Your task to perform on an android device: install app "Pandora - Music & Podcasts" Image 0: 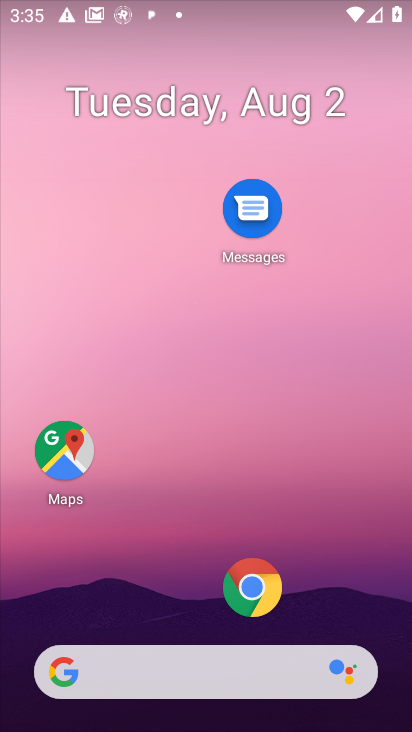
Step 0: drag from (145, 603) to (154, 356)
Your task to perform on an android device: install app "Pandora - Music & Podcasts" Image 1: 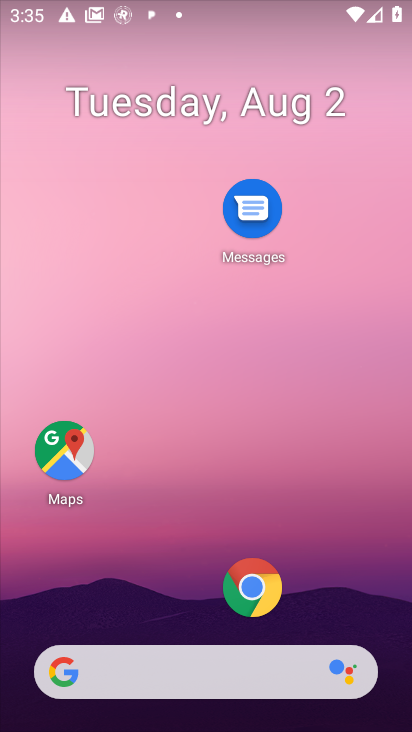
Step 1: drag from (147, 574) to (152, 238)
Your task to perform on an android device: install app "Pandora - Music & Podcasts" Image 2: 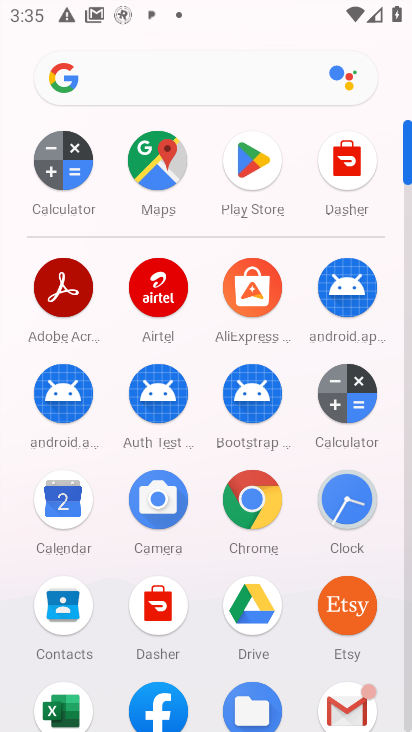
Step 2: click (240, 160)
Your task to perform on an android device: install app "Pandora - Music & Podcasts" Image 3: 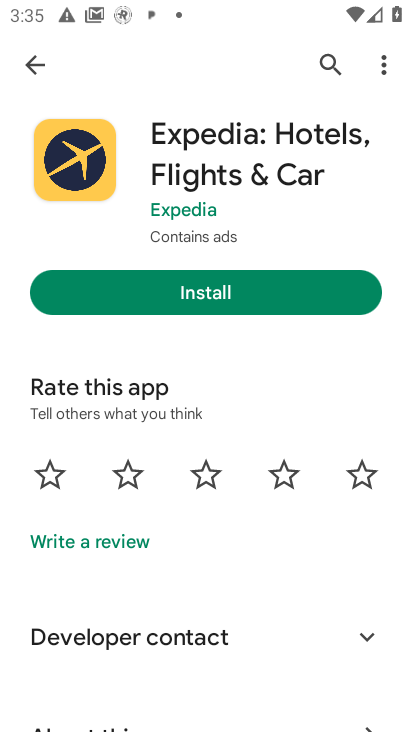
Step 3: click (321, 63)
Your task to perform on an android device: install app "Pandora - Music & Podcasts" Image 4: 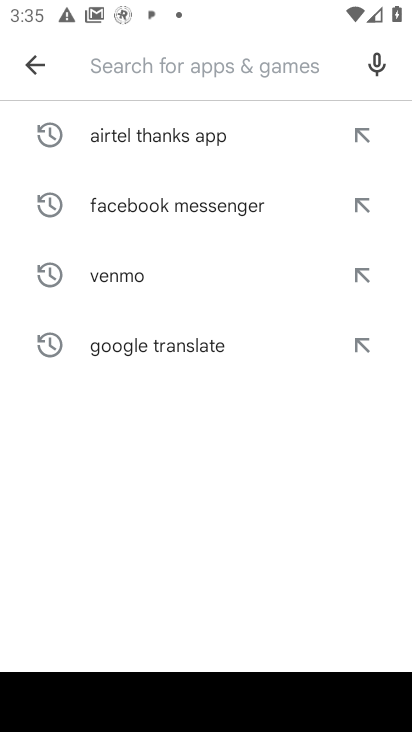
Step 4: type "Pandora - Music & Podcasts"
Your task to perform on an android device: install app "Pandora - Music & Podcasts" Image 5: 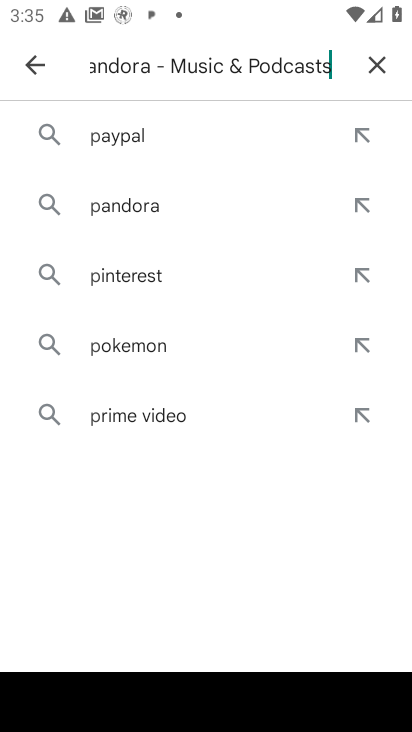
Step 5: type ""
Your task to perform on an android device: install app "Pandora - Music & Podcasts" Image 6: 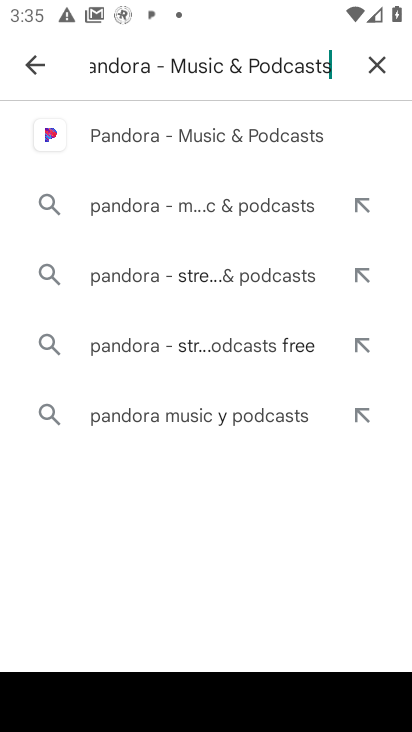
Step 6: click (159, 143)
Your task to perform on an android device: install app "Pandora - Music & Podcasts" Image 7: 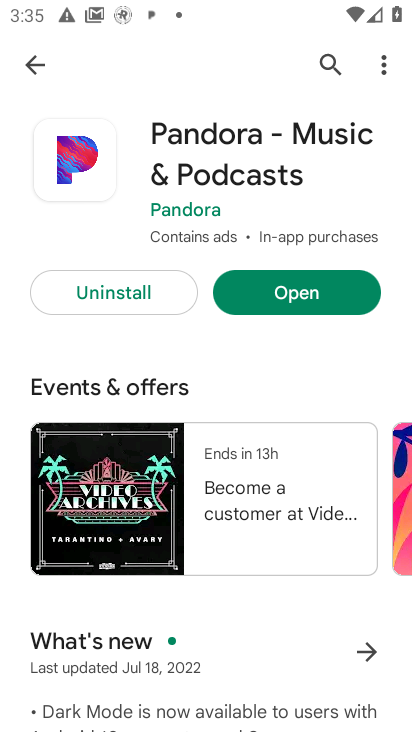
Step 7: task complete